Your task to perform on an android device: change alarm snooze length Image 0: 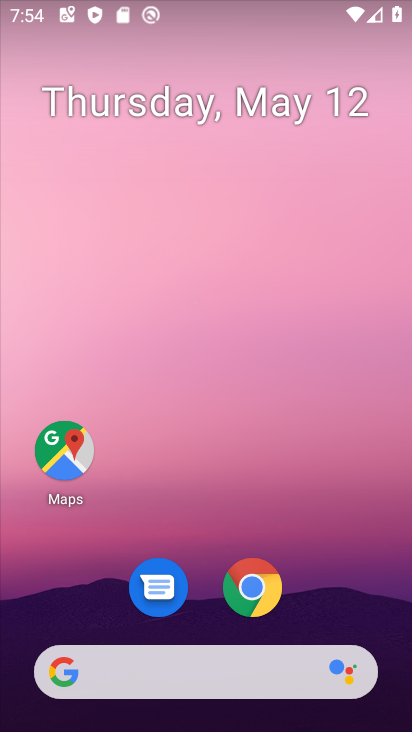
Step 0: drag from (327, 605) to (307, 110)
Your task to perform on an android device: change alarm snooze length Image 1: 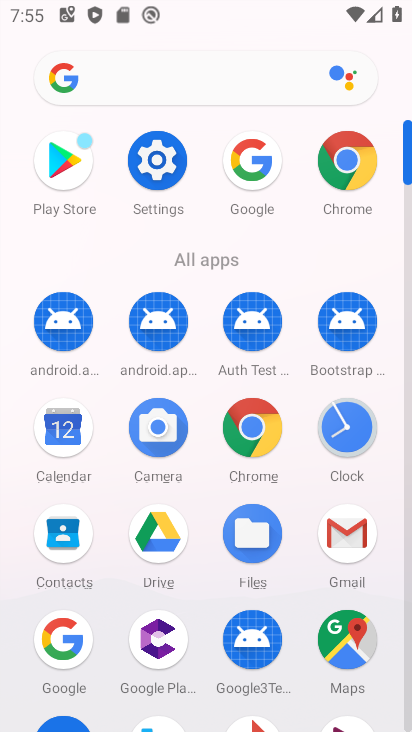
Step 1: click (336, 425)
Your task to perform on an android device: change alarm snooze length Image 2: 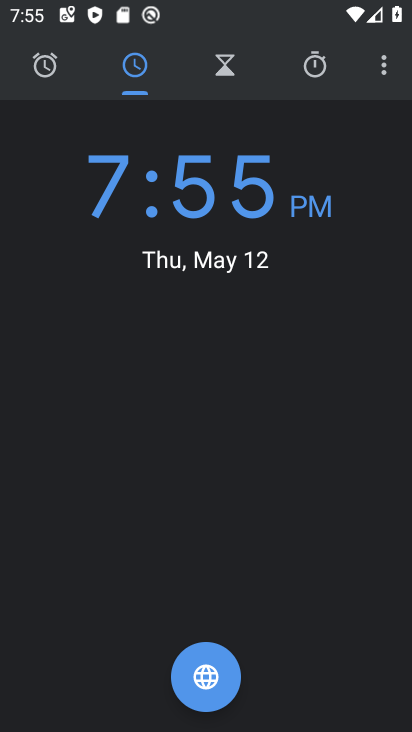
Step 2: click (372, 63)
Your task to perform on an android device: change alarm snooze length Image 3: 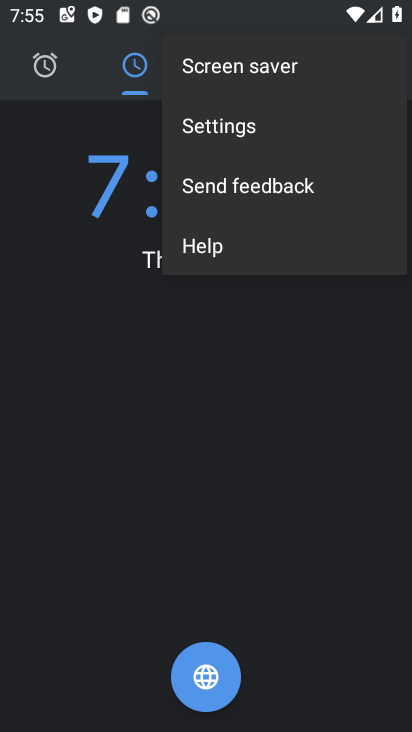
Step 3: click (255, 115)
Your task to perform on an android device: change alarm snooze length Image 4: 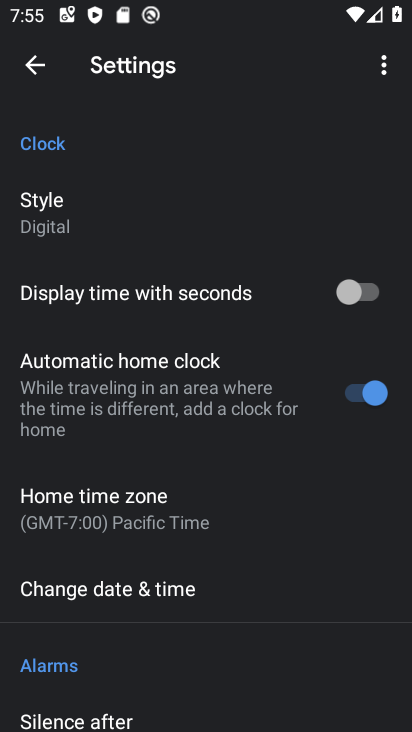
Step 4: drag from (166, 624) to (249, 186)
Your task to perform on an android device: change alarm snooze length Image 5: 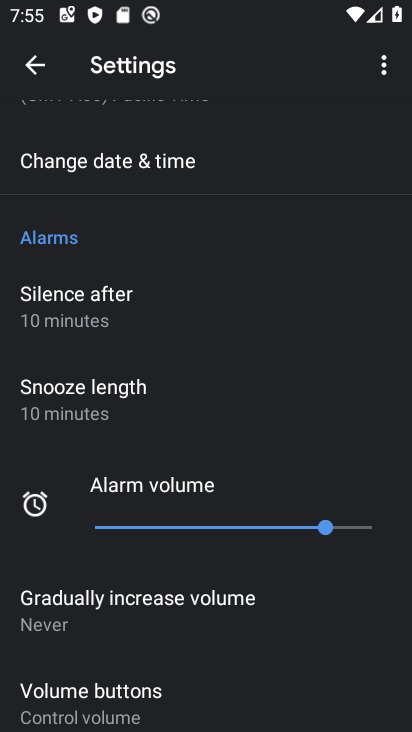
Step 5: click (127, 422)
Your task to perform on an android device: change alarm snooze length Image 6: 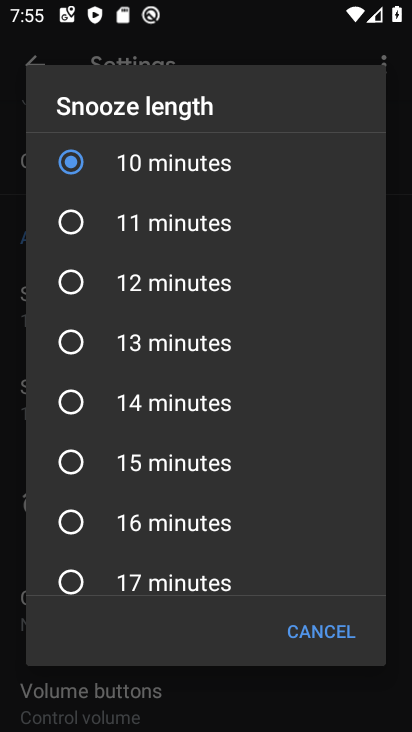
Step 6: click (164, 528)
Your task to perform on an android device: change alarm snooze length Image 7: 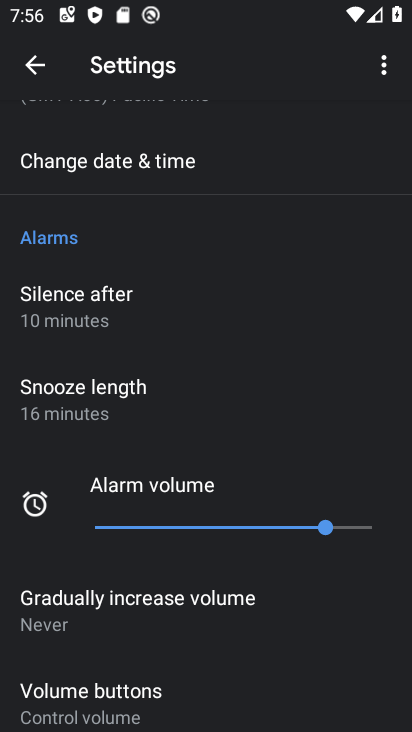
Step 7: task complete